Your task to perform on an android device: Show me the alarms in the clock app Image 0: 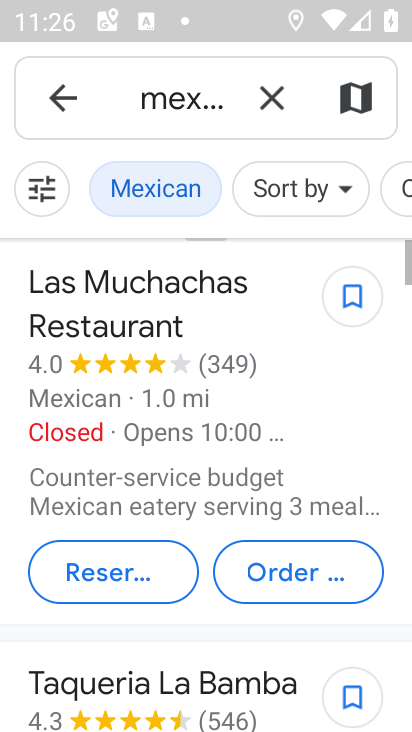
Step 0: press home button
Your task to perform on an android device: Show me the alarms in the clock app Image 1: 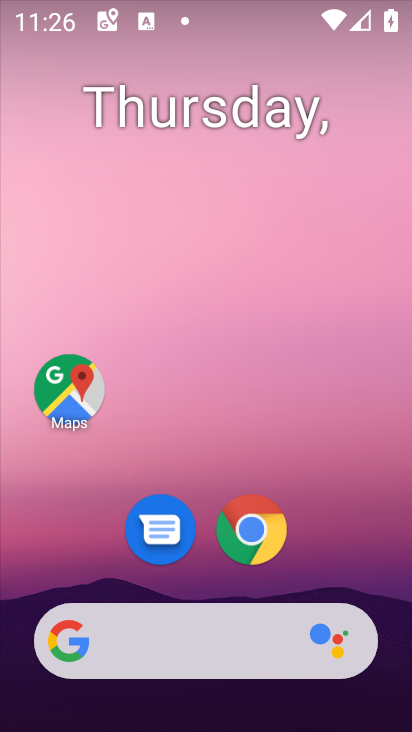
Step 1: drag from (230, 642) to (203, 81)
Your task to perform on an android device: Show me the alarms in the clock app Image 2: 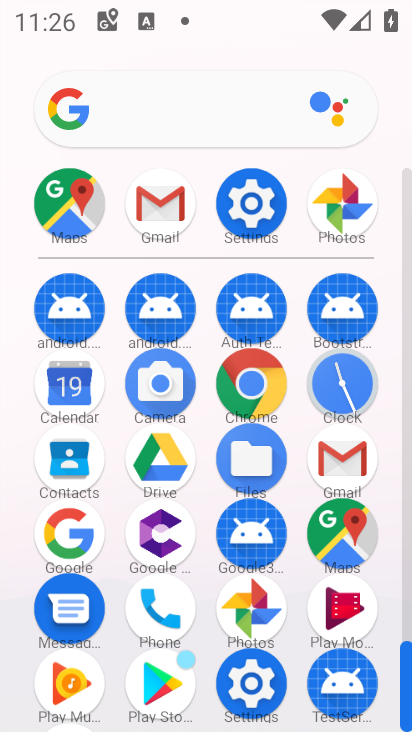
Step 2: click (348, 395)
Your task to perform on an android device: Show me the alarms in the clock app Image 3: 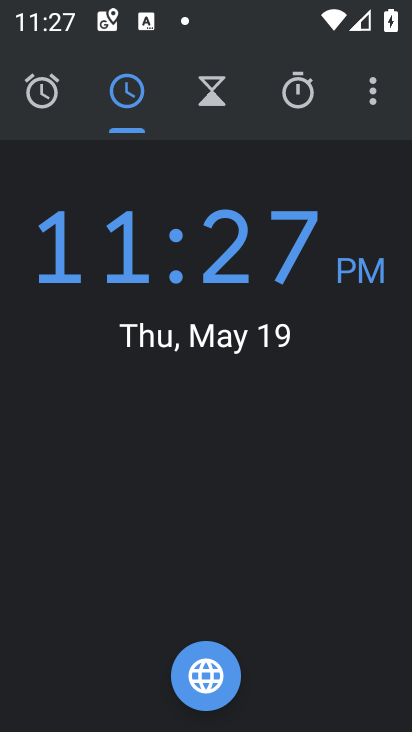
Step 3: click (45, 106)
Your task to perform on an android device: Show me the alarms in the clock app Image 4: 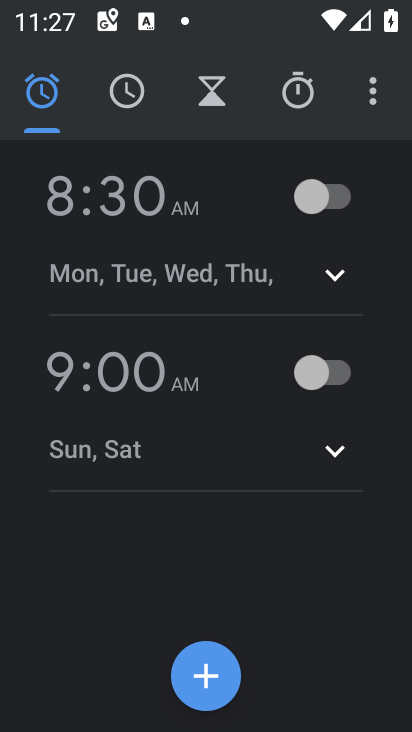
Step 4: task complete